Your task to perform on an android device: Do I have any events this weekend? Image 0: 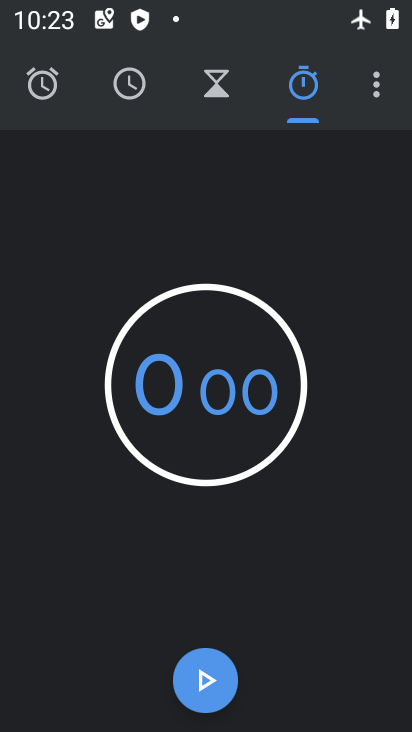
Step 0: press home button
Your task to perform on an android device: Do I have any events this weekend? Image 1: 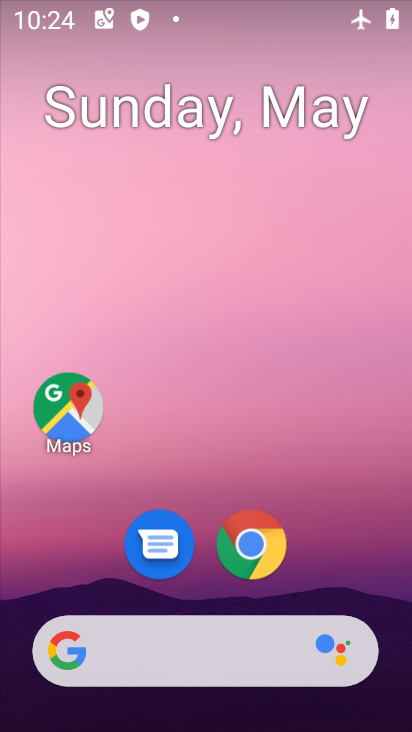
Step 1: drag from (318, 587) to (328, 306)
Your task to perform on an android device: Do I have any events this weekend? Image 2: 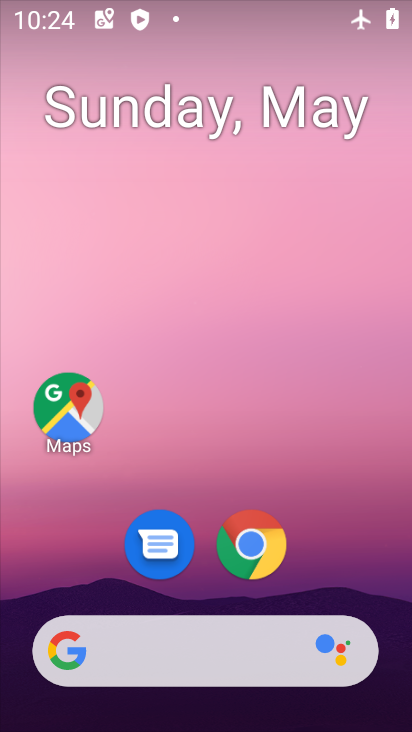
Step 2: drag from (324, 570) to (334, 212)
Your task to perform on an android device: Do I have any events this weekend? Image 3: 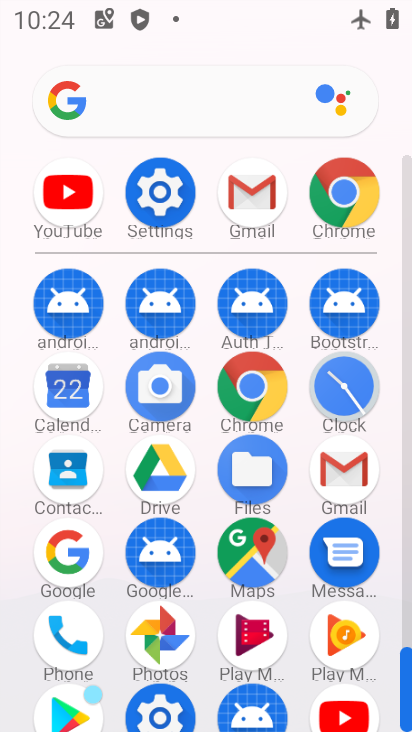
Step 3: click (84, 385)
Your task to perform on an android device: Do I have any events this weekend? Image 4: 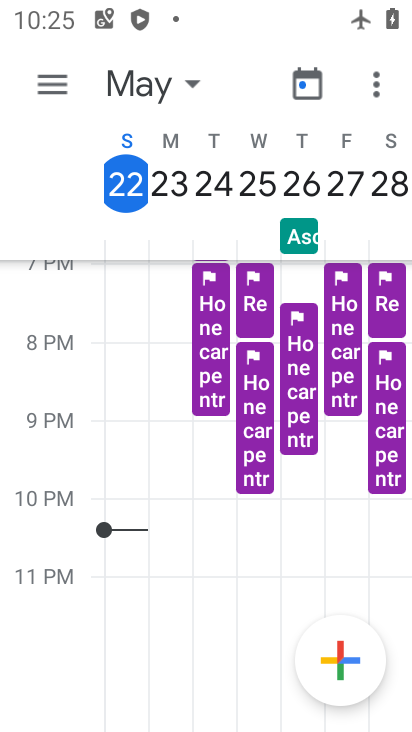
Step 4: task complete